Your task to perform on an android device: Open the web browser Image 0: 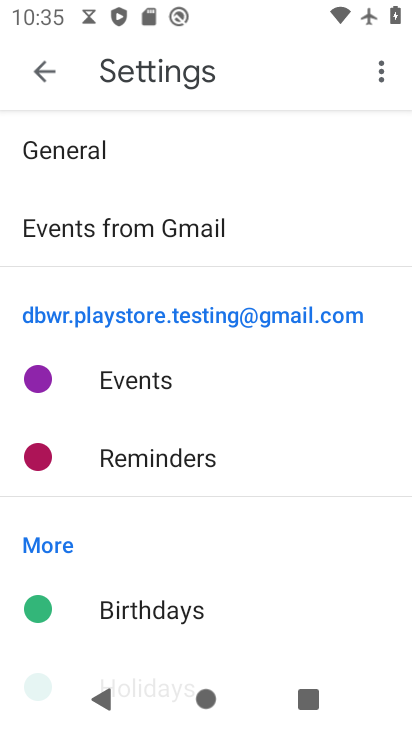
Step 0: press home button
Your task to perform on an android device: Open the web browser Image 1: 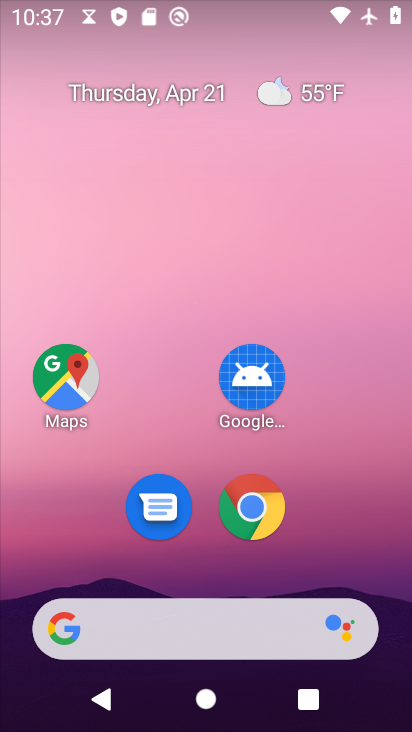
Step 1: click (250, 516)
Your task to perform on an android device: Open the web browser Image 2: 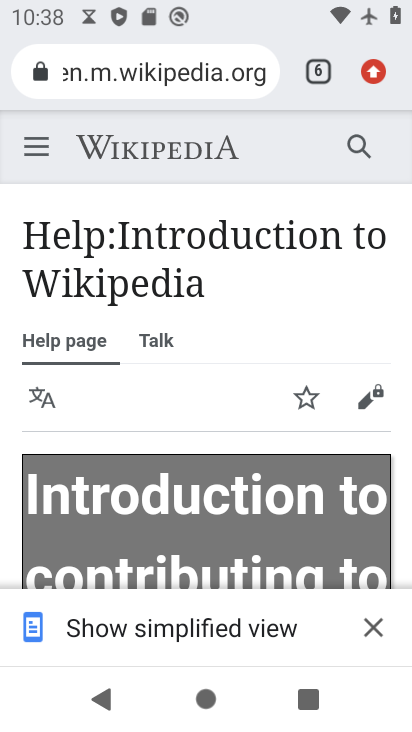
Step 2: task complete